Your task to perform on an android device: refresh tabs in the chrome app Image 0: 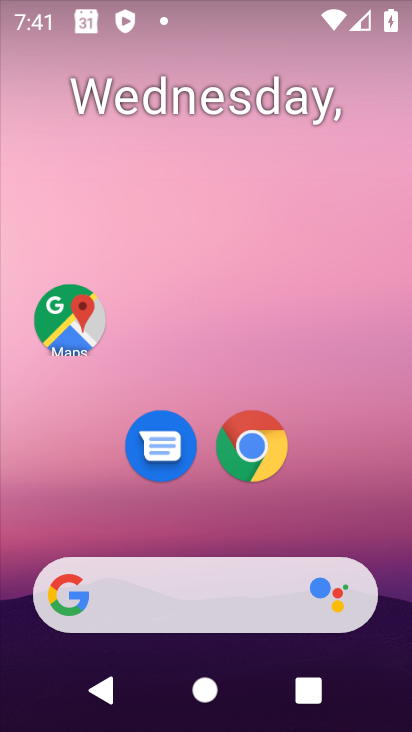
Step 0: drag from (335, 530) to (389, 82)
Your task to perform on an android device: refresh tabs in the chrome app Image 1: 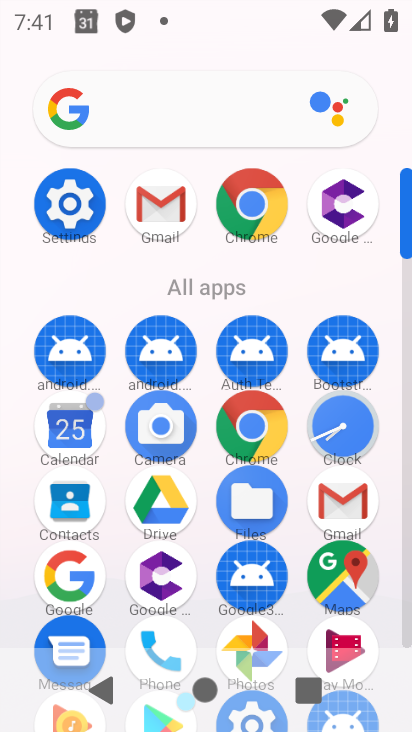
Step 1: click (274, 203)
Your task to perform on an android device: refresh tabs in the chrome app Image 2: 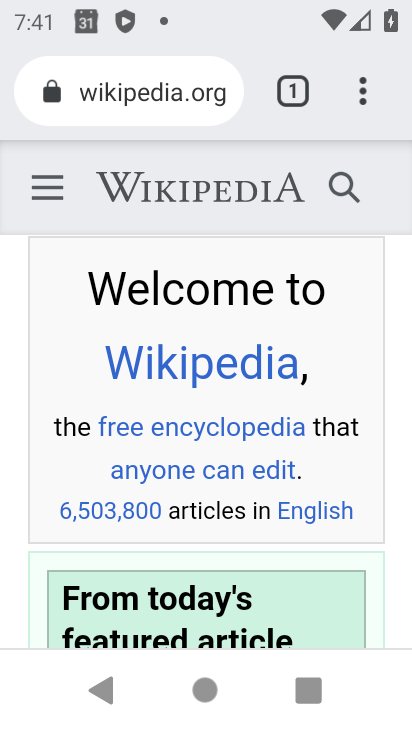
Step 2: task complete